Your task to perform on an android device: empty trash in google photos Image 0: 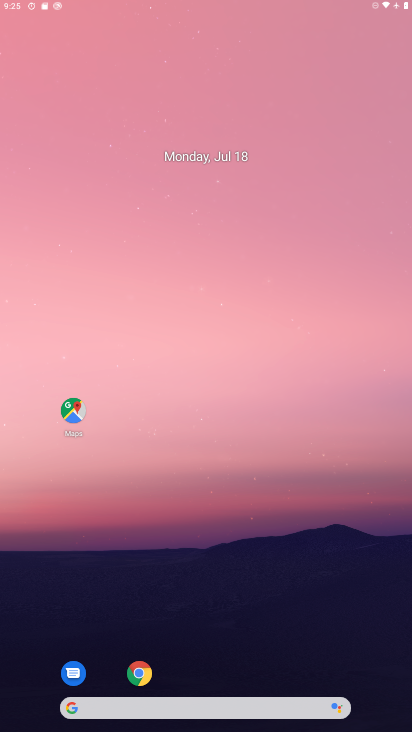
Step 0: press home button
Your task to perform on an android device: empty trash in google photos Image 1: 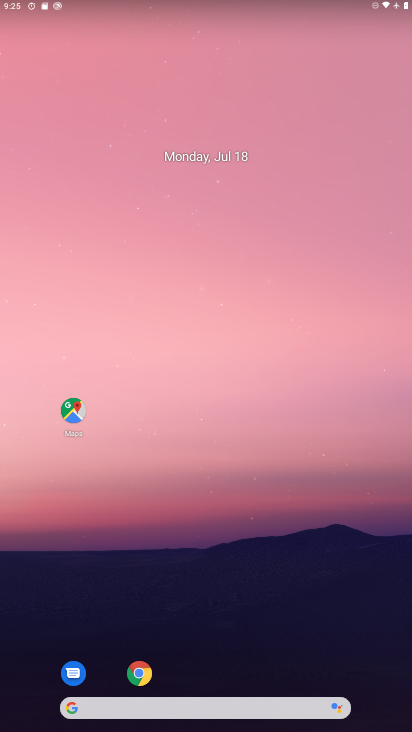
Step 1: drag from (275, 677) to (234, 3)
Your task to perform on an android device: empty trash in google photos Image 2: 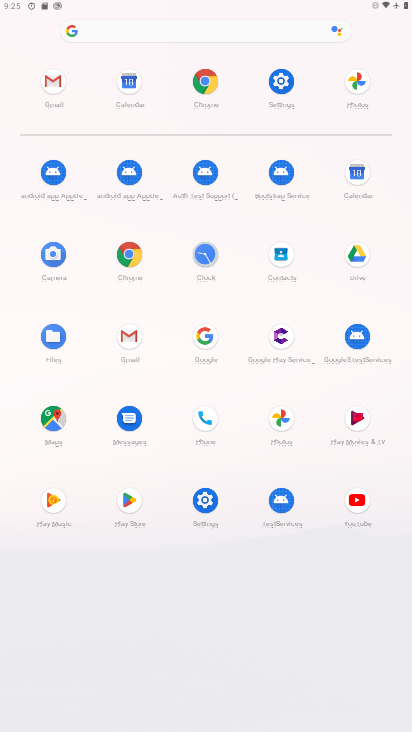
Step 2: click (286, 421)
Your task to perform on an android device: empty trash in google photos Image 3: 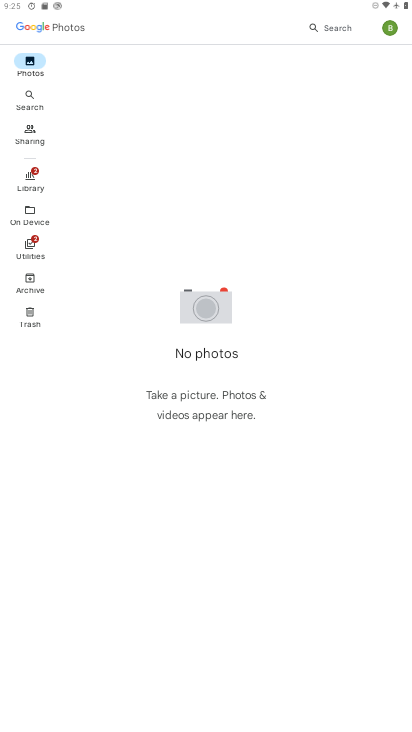
Step 3: click (29, 309)
Your task to perform on an android device: empty trash in google photos Image 4: 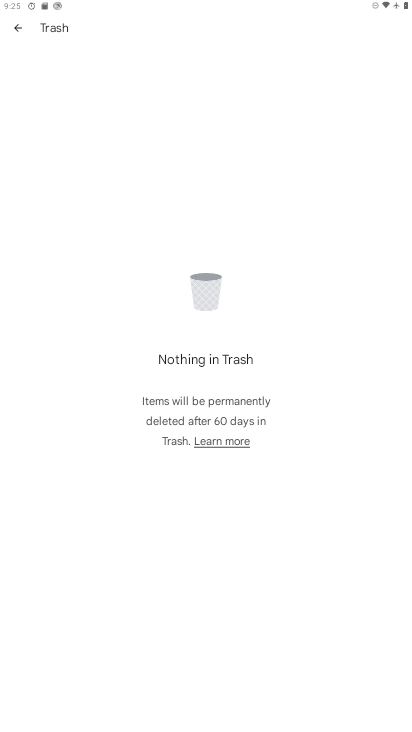
Step 4: task complete